Your task to perform on an android device: Open settings Image 0: 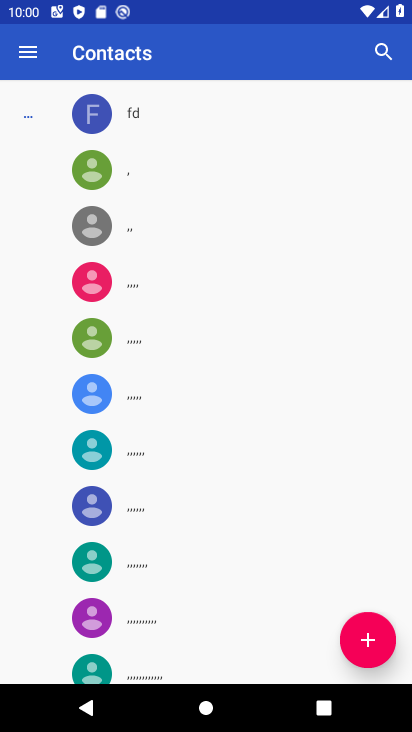
Step 0: press home button
Your task to perform on an android device: Open settings Image 1: 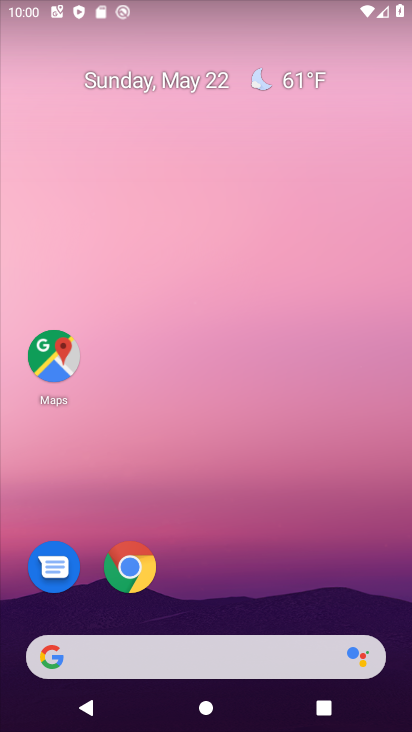
Step 1: drag from (207, 624) to (135, 3)
Your task to perform on an android device: Open settings Image 2: 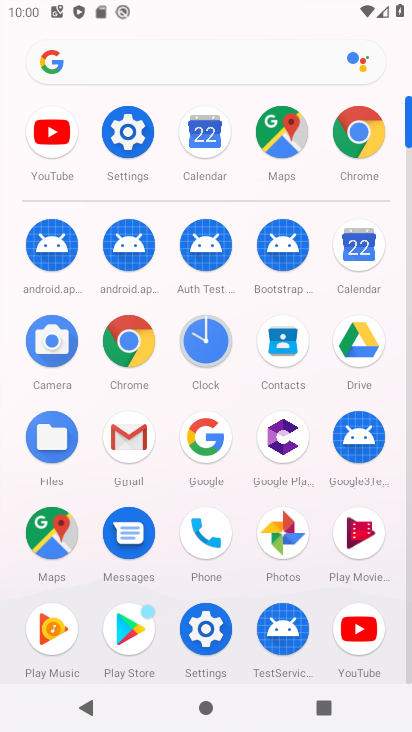
Step 2: click (122, 157)
Your task to perform on an android device: Open settings Image 3: 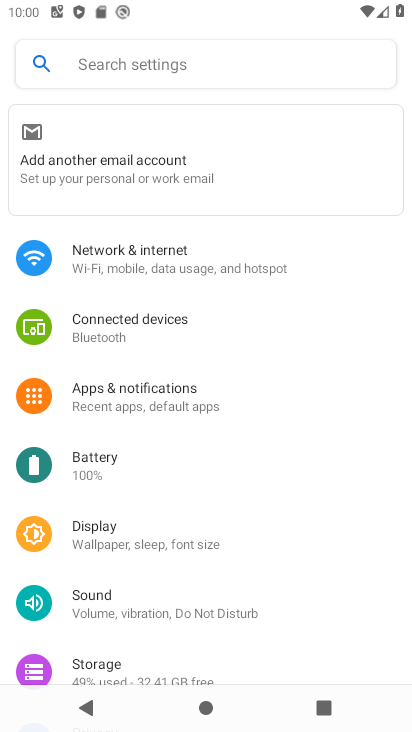
Step 3: task complete